Your task to perform on an android device: See recent photos Image 0: 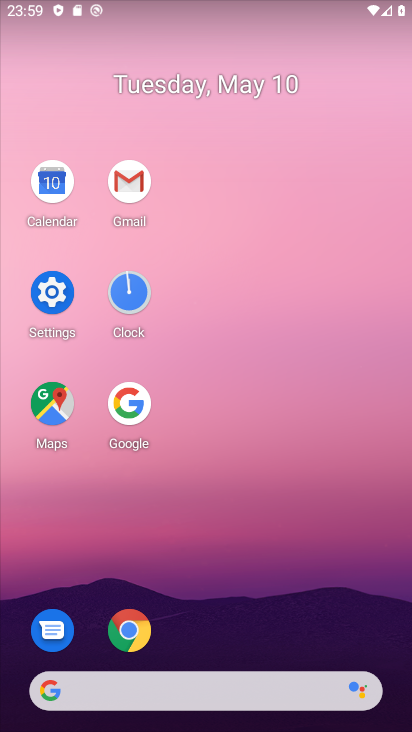
Step 0: drag from (254, 635) to (313, 112)
Your task to perform on an android device: See recent photos Image 1: 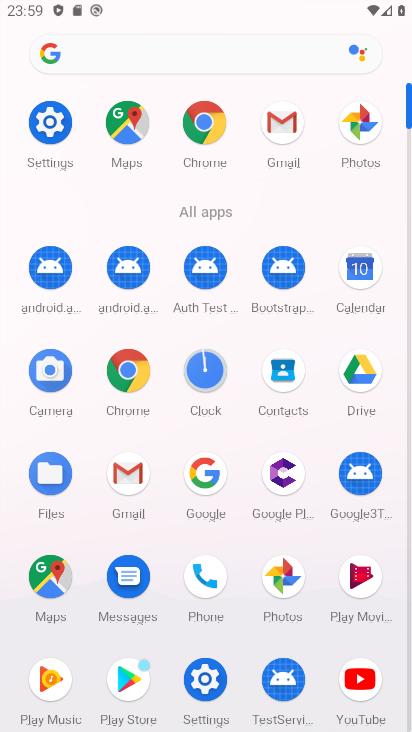
Step 1: drag from (288, 570) to (203, 206)
Your task to perform on an android device: See recent photos Image 2: 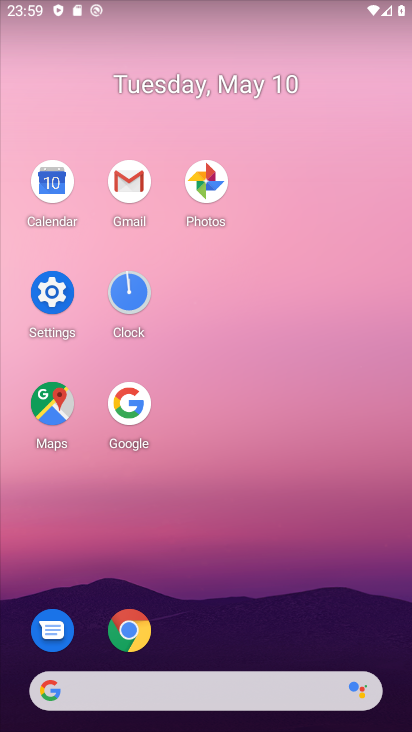
Step 2: click (209, 181)
Your task to perform on an android device: See recent photos Image 3: 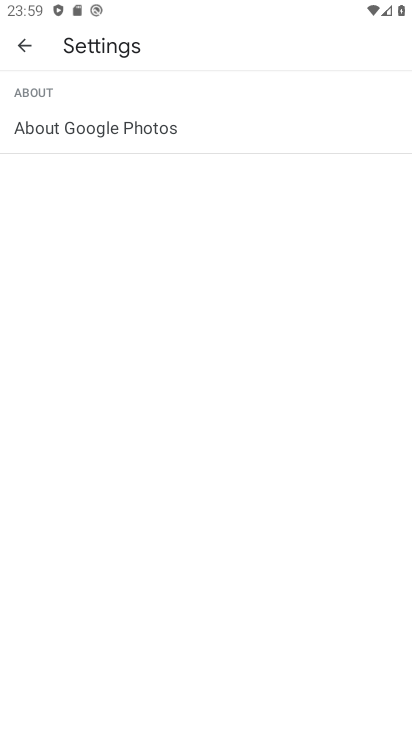
Step 3: click (23, 55)
Your task to perform on an android device: See recent photos Image 4: 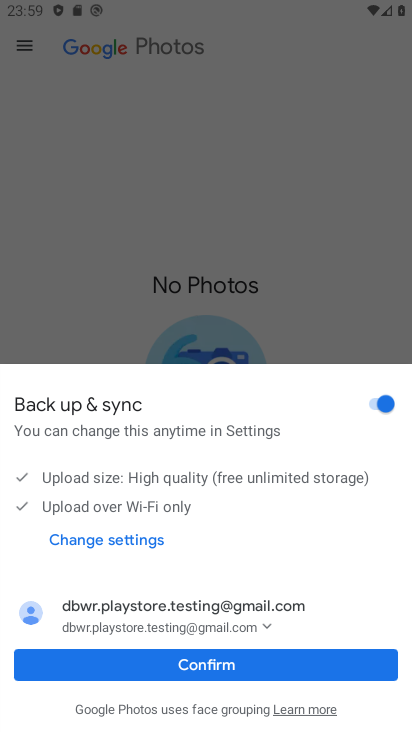
Step 4: click (200, 672)
Your task to perform on an android device: See recent photos Image 5: 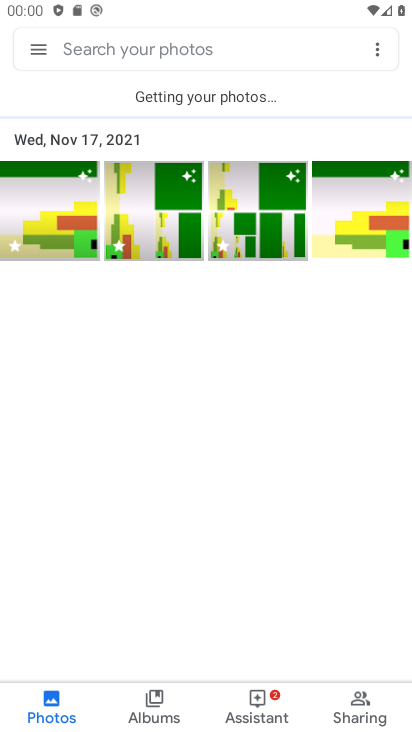
Step 5: click (58, 213)
Your task to perform on an android device: See recent photos Image 6: 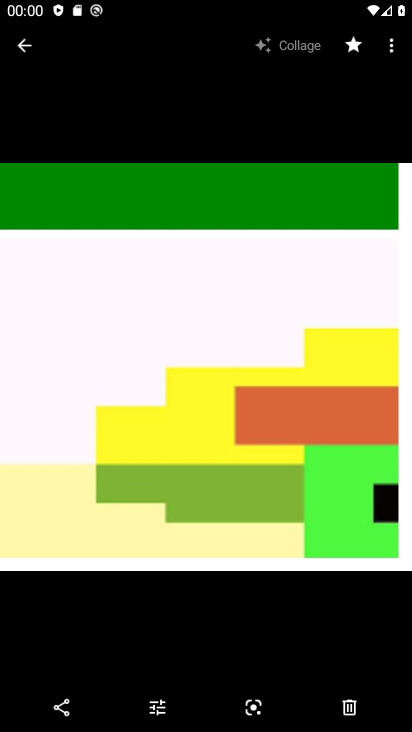
Step 6: task complete